Your task to perform on an android device: Search for Italian restaurants on Maps Image 0: 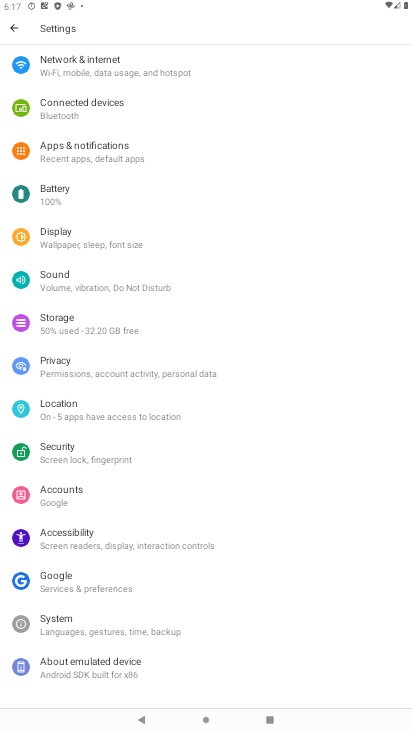
Step 0: drag from (393, 695) to (334, 211)
Your task to perform on an android device: Search for Italian restaurants on Maps Image 1: 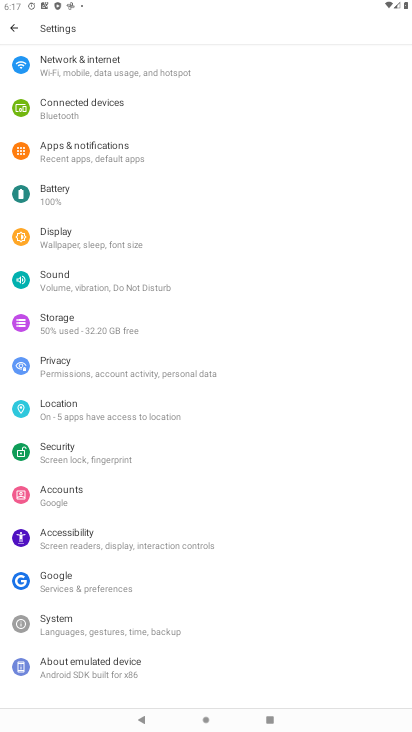
Step 1: press home button
Your task to perform on an android device: Search for Italian restaurants on Maps Image 2: 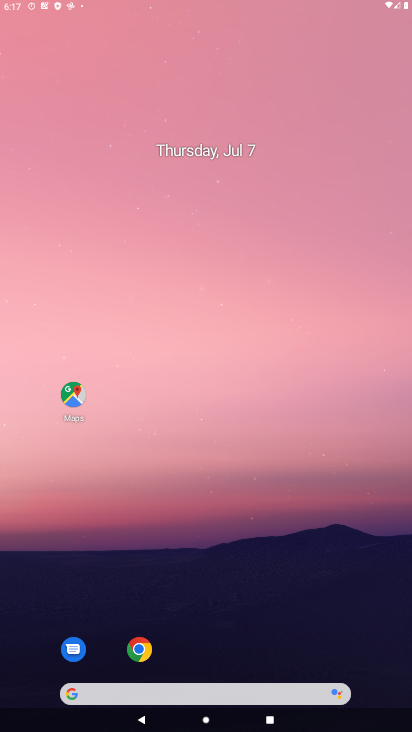
Step 2: drag from (383, 700) to (253, 10)
Your task to perform on an android device: Search for Italian restaurants on Maps Image 3: 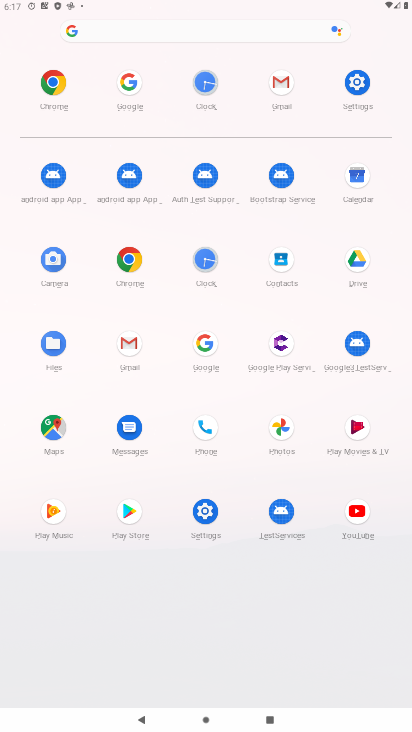
Step 3: click (52, 416)
Your task to perform on an android device: Search for Italian restaurants on Maps Image 4: 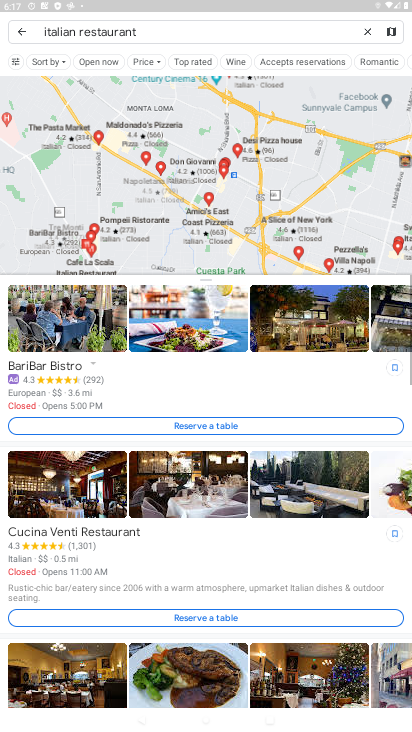
Step 4: task complete